Your task to perform on an android device: manage bookmarks in the chrome app Image 0: 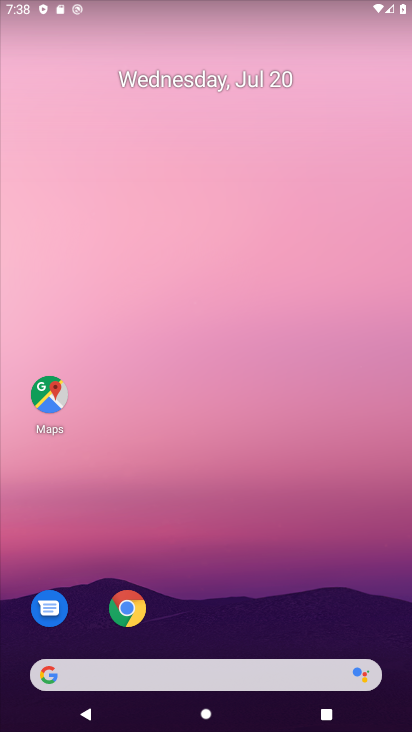
Step 0: click (124, 616)
Your task to perform on an android device: manage bookmarks in the chrome app Image 1: 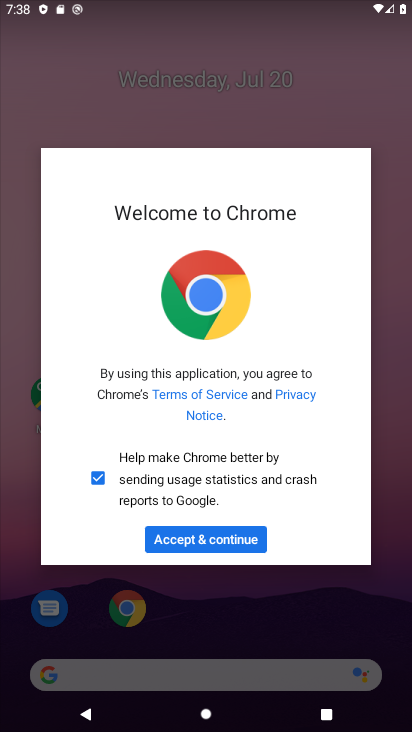
Step 1: click (218, 538)
Your task to perform on an android device: manage bookmarks in the chrome app Image 2: 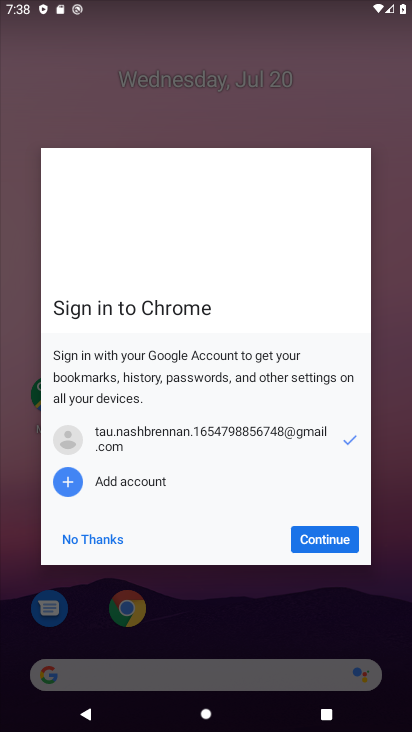
Step 2: click (333, 549)
Your task to perform on an android device: manage bookmarks in the chrome app Image 3: 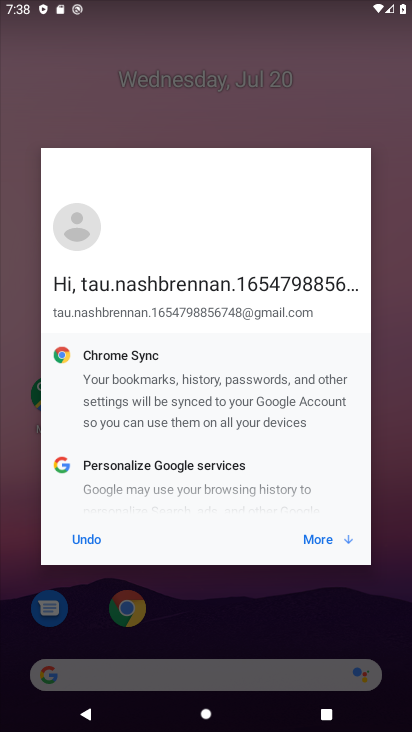
Step 3: click (328, 547)
Your task to perform on an android device: manage bookmarks in the chrome app Image 4: 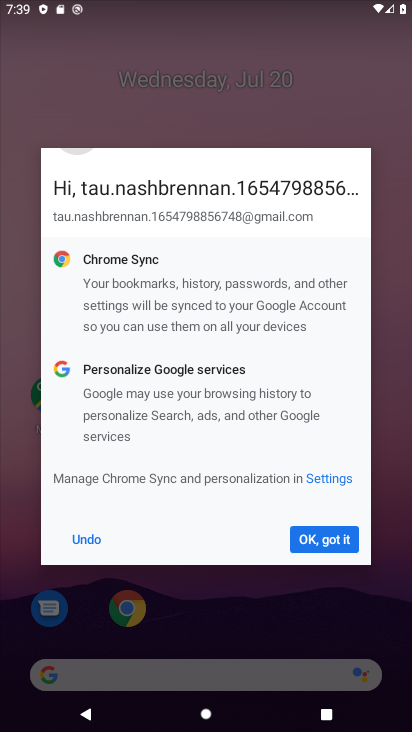
Step 4: click (307, 531)
Your task to perform on an android device: manage bookmarks in the chrome app Image 5: 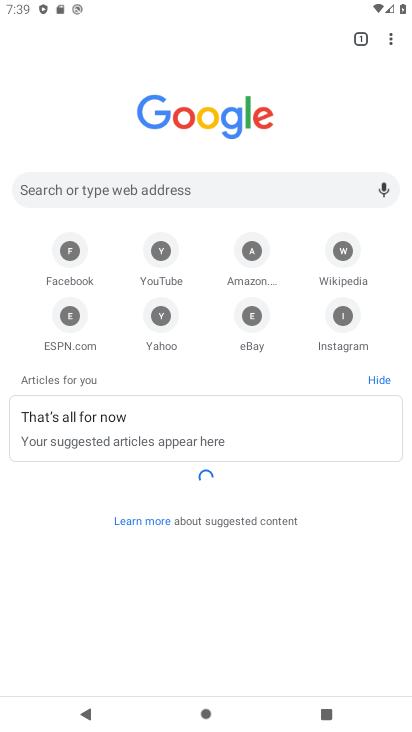
Step 5: click (390, 39)
Your task to perform on an android device: manage bookmarks in the chrome app Image 6: 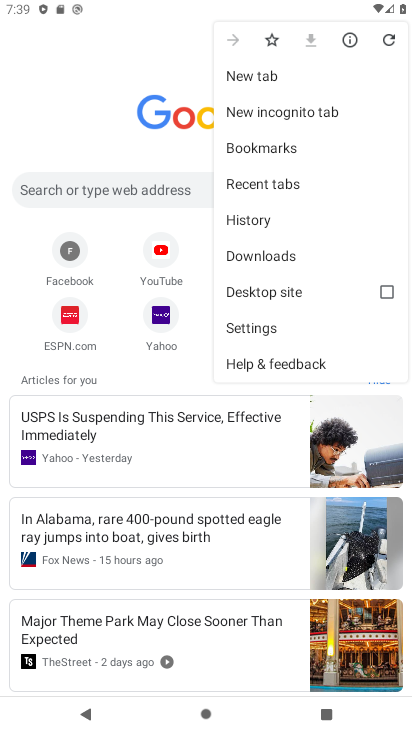
Step 6: click (266, 153)
Your task to perform on an android device: manage bookmarks in the chrome app Image 7: 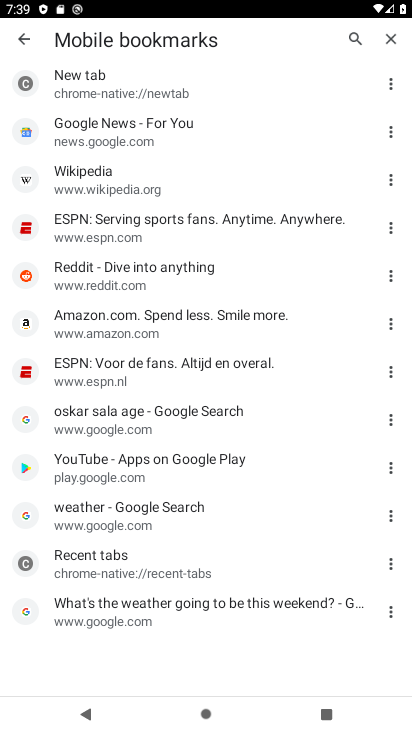
Step 7: click (393, 83)
Your task to perform on an android device: manage bookmarks in the chrome app Image 8: 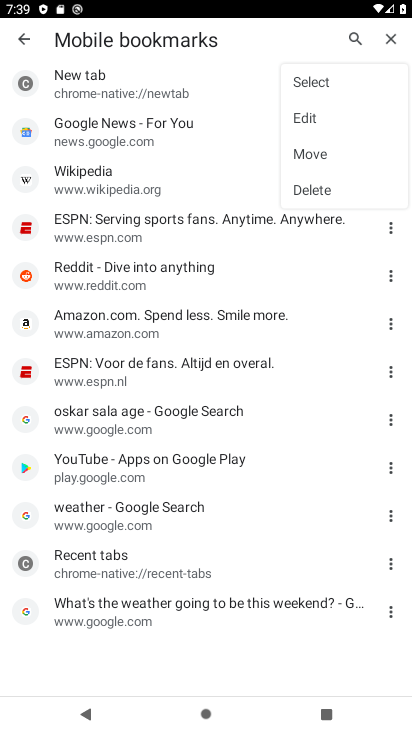
Step 8: click (328, 82)
Your task to perform on an android device: manage bookmarks in the chrome app Image 9: 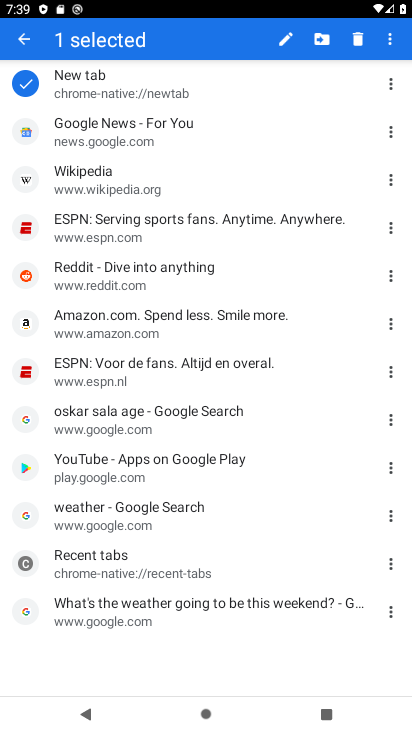
Step 9: click (140, 141)
Your task to perform on an android device: manage bookmarks in the chrome app Image 10: 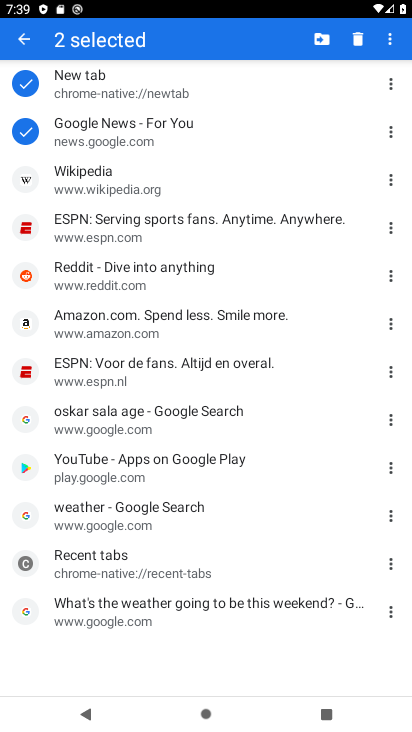
Step 10: click (131, 181)
Your task to perform on an android device: manage bookmarks in the chrome app Image 11: 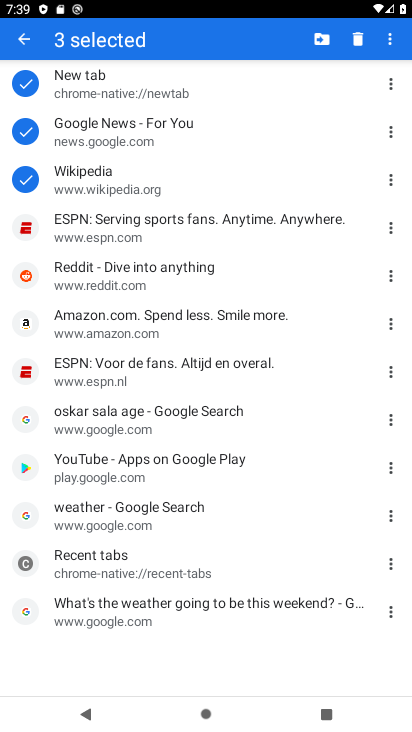
Step 11: click (111, 226)
Your task to perform on an android device: manage bookmarks in the chrome app Image 12: 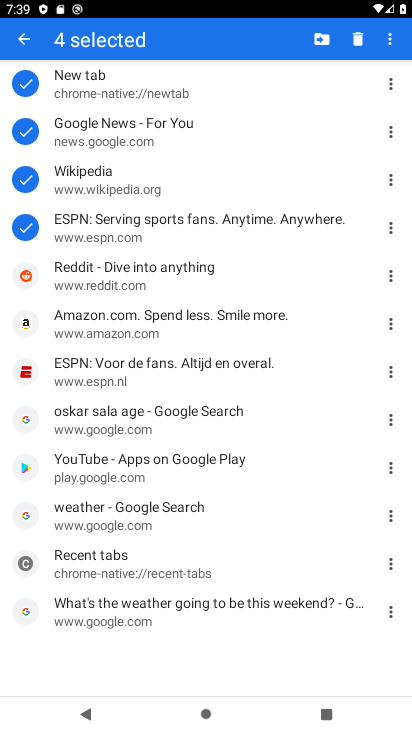
Step 12: click (119, 276)
Your task to perform on an android device: manage bookmarks in the chrome app Image 13: 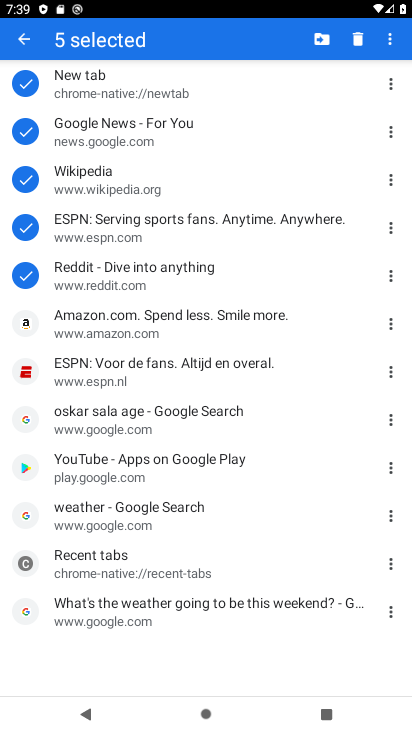
Step 13: click (123, 322)
Your task to perform on an android device: manage bookmarks in the chrome app Image 14: 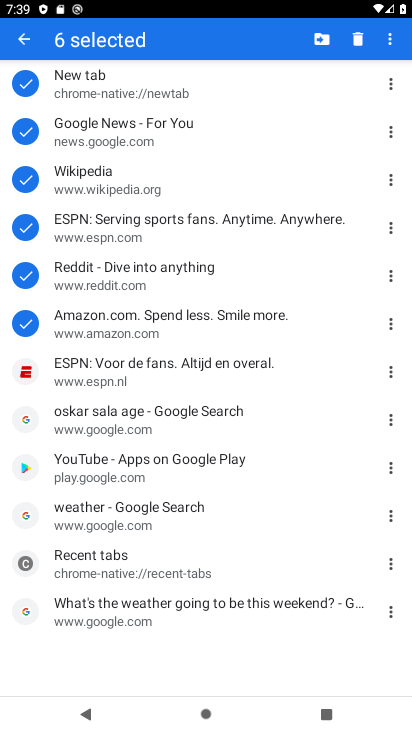
Step 14: click (114, 376)
Your task to perform on an android device: manage bookmarks in the chrome app Image 15: 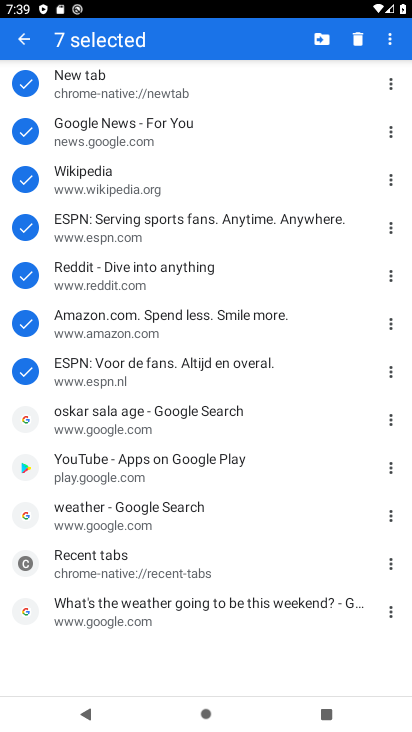
Step 15: click (122, 390)
Your task to perform on an android device: manage bookmarks in the chrome app Image 16: 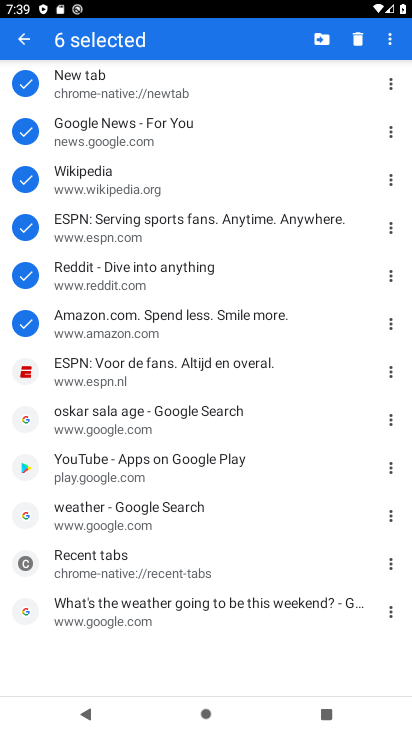
Step 16: click (121, 425)
Your task to perform on an android device: manage bookmarks in the chrome app Image 17: 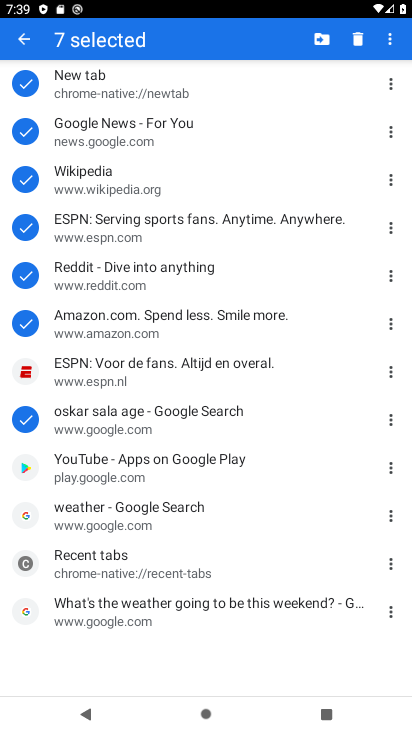
Step 17: click (130, 458)
Your task to perform on an android device: manage bookmarks in the chrome app Image 18: 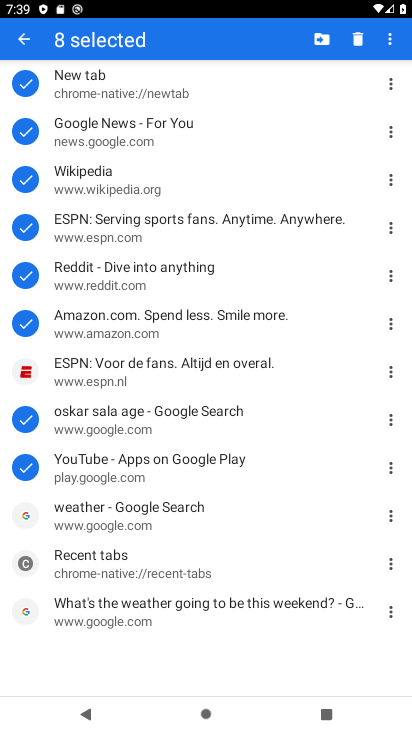
Step 18: click (101, 527)
Your task to perform on an android device: manage bookmarks in the chrome app Image 19: 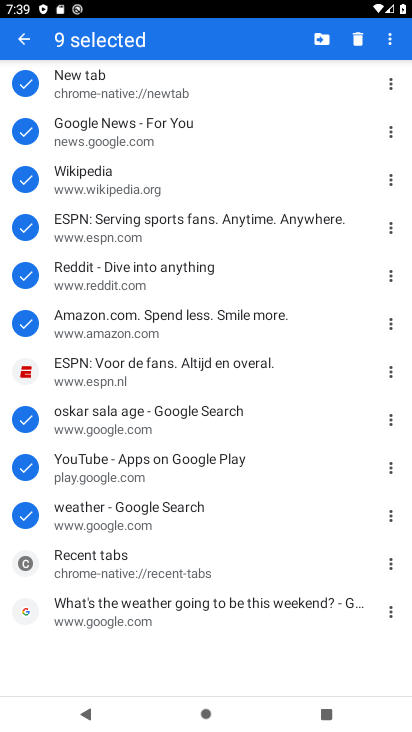
Step 19: click (63, 376)
Your task to perform on an android device: manage bookmarks in the chrome app Image 20: 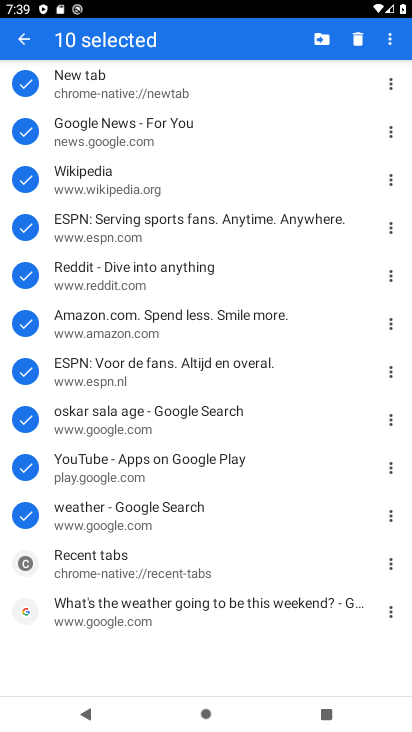
Step 20: click (88, 572)
Your task to perform on an android device: manage bookmarks in the chrome app Image 21: 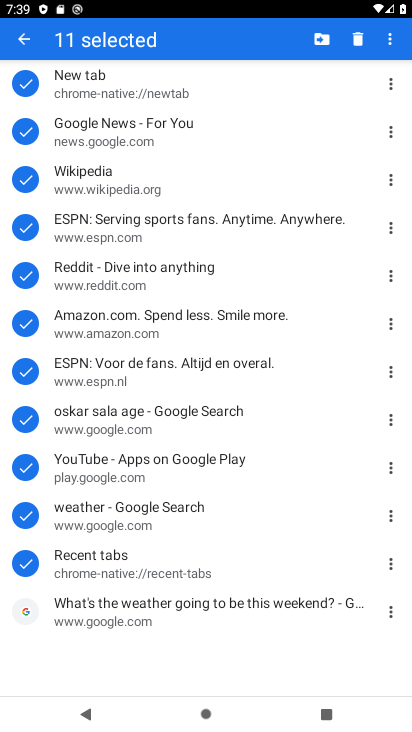
Step 21: click (114, 613)
Your task to perform on an android device: manage bookmarks in the chrome app Image 22: 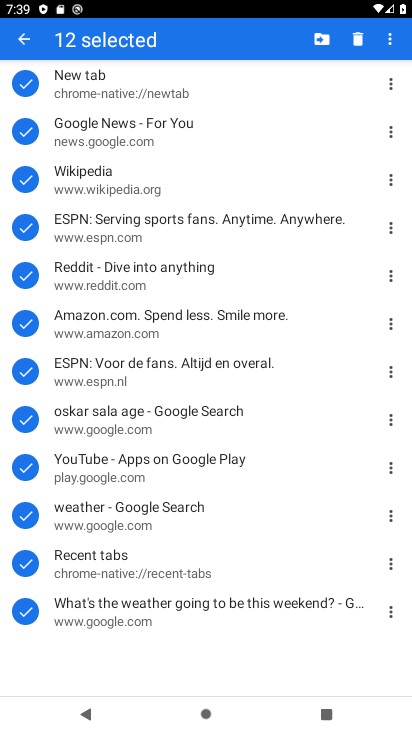
Step 22: click (324, 44)
Your task to perform on an android device: manage bookmarks in the chrome app Image 23: 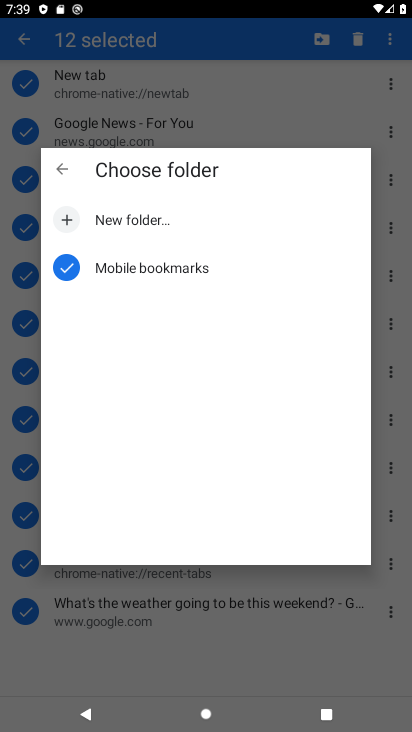
Step 23: click (147, 219)
Your task to perform on an android device: manage bookmarks in the chrome app Image 24: 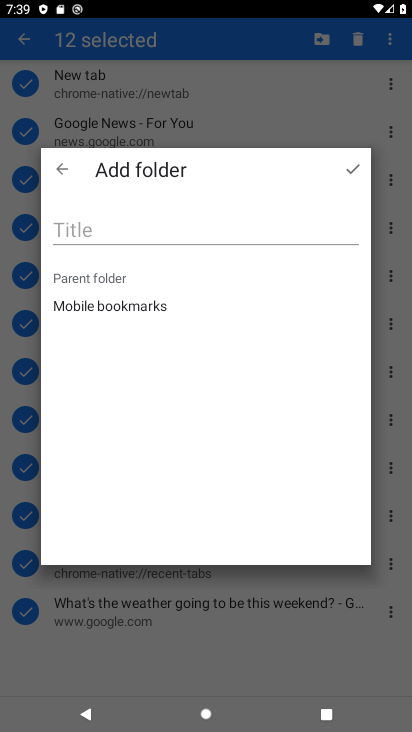
Step 24: click (149, 226)
Your task to perform on an android device: manage bookmarks in the chrome app Image 25: 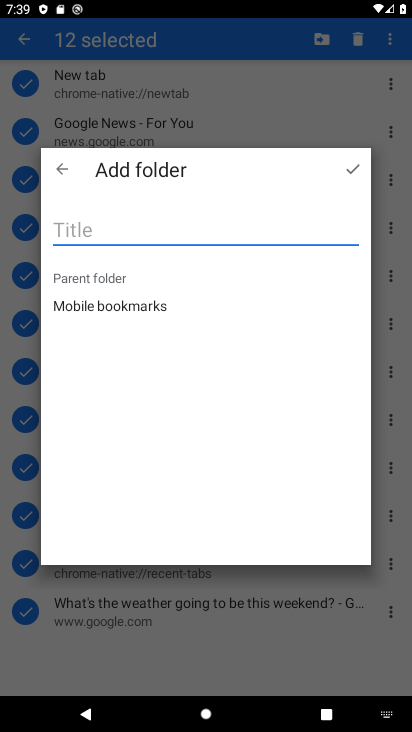
Step 25: type "dairy"
Your task to perform on an android device: manage bookmarks in the chrome app Image 26: 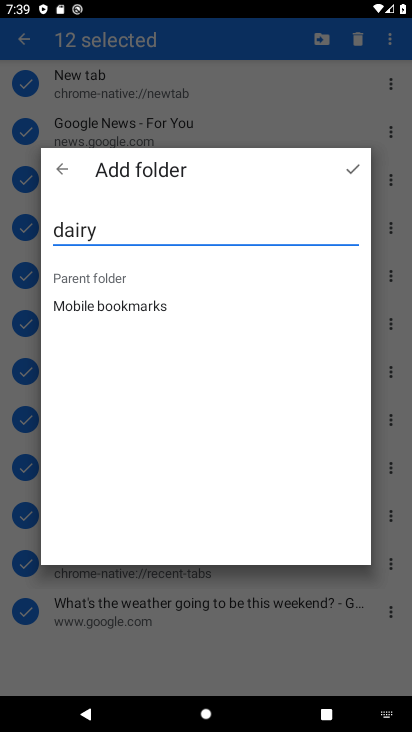
Step 26: click (360, 166)
Your task to perform on an android device: manage bookmarks in the chrome app Image 27: 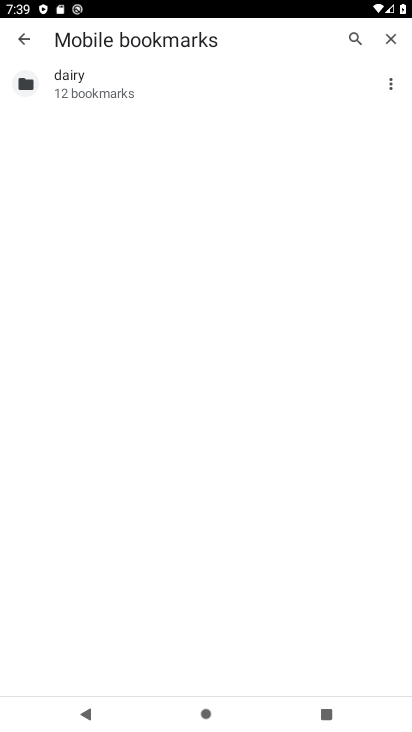
Step 27: task complete